Your task to perform on an android device: Open Chrome and go to the settings page Image 0: 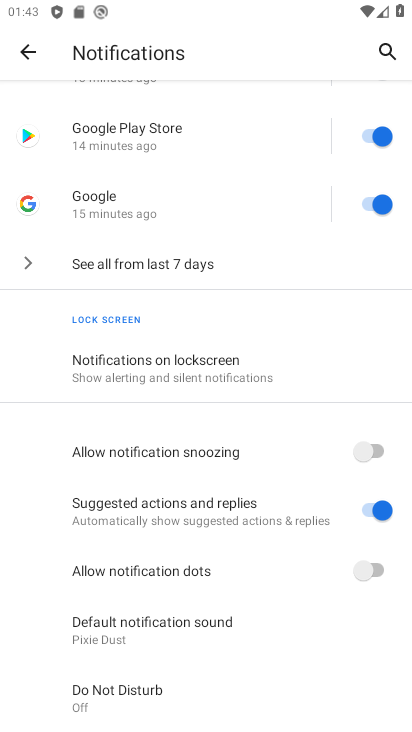
Step 0: press home button
Your task to perform on an android device: Open Chrome and go to the settings page Image 1: 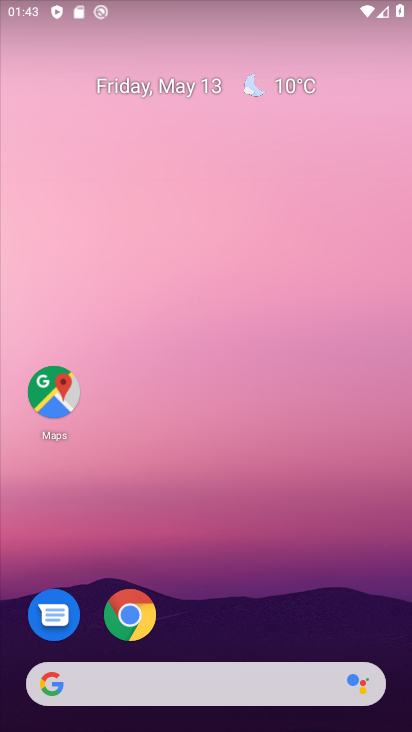
Step 1: click (148, 613)
Your task to perform on an android device: Open Chrome and go to the settings page Image 2: 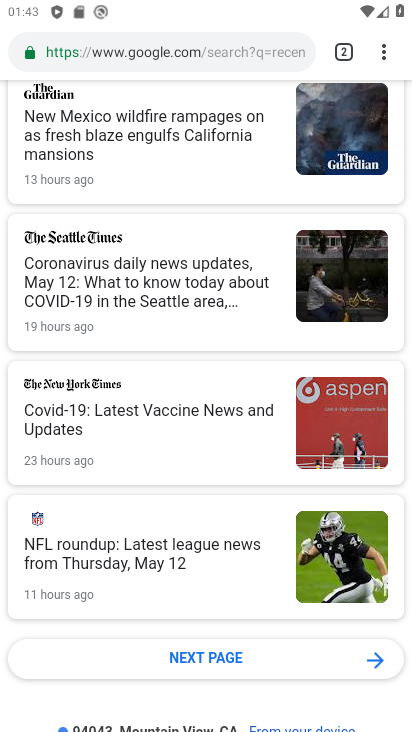
Step 2: click (382, 50)
Your task to perform on an android device: Open Chrome and go to the settings page Image 3: 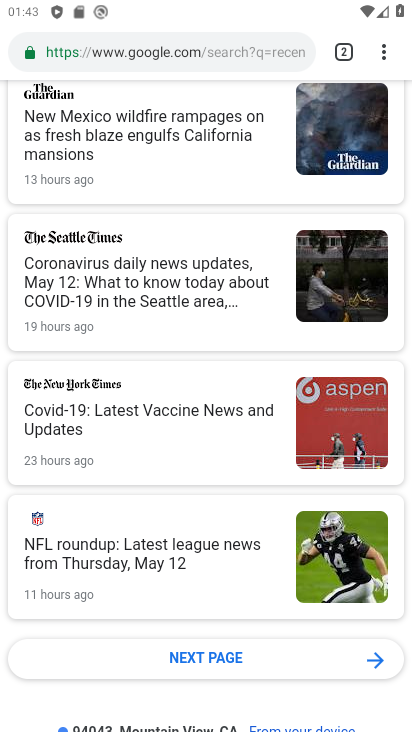
Step 3: click (383, 51)
Your task to perform on an android device: Open Chrome and go to the settings page Image 4: 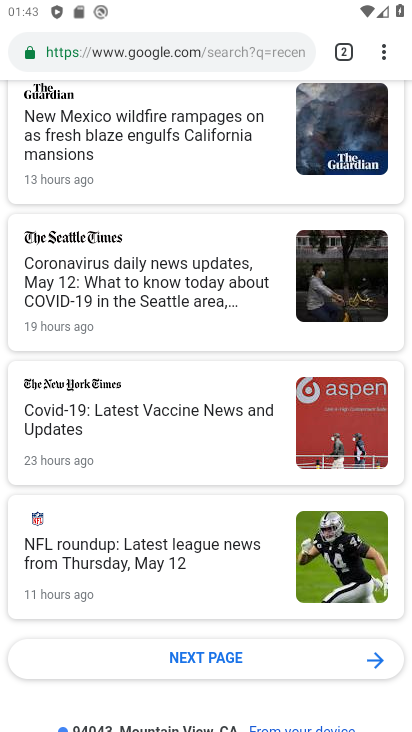
Step 4: click (383, 51)
Your task to perform on an android device: Open Chrome and go to the settings page Image 5: 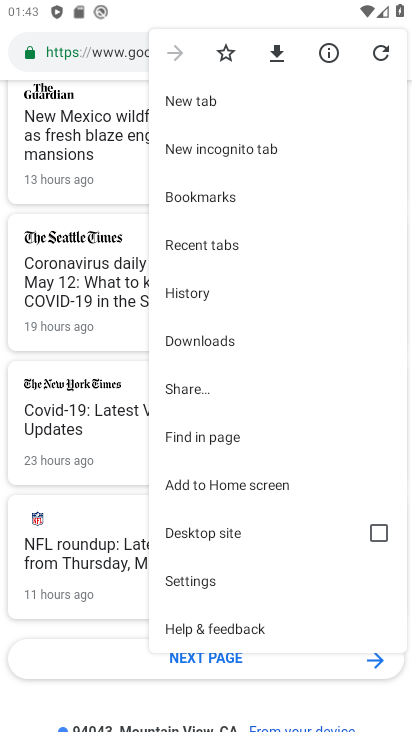
Step 5: click (174, 577)
Your task to perform on an android device: Open Chrome and go to the settings page Image 6: 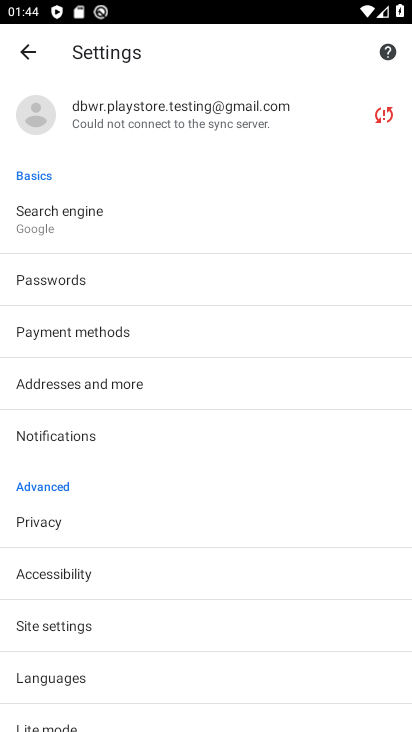
Step 6: task complete